Your task to perform on an android device: Open accessibility settings Image 0: 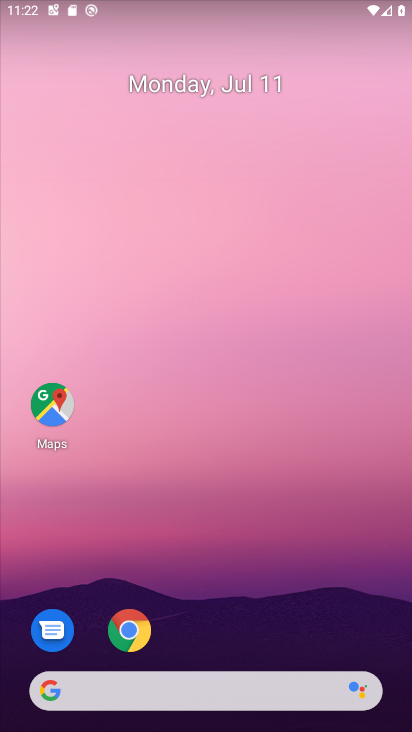
Step 0: drag from (185, 646) to (159, 47)
Your task to perform on an android device: Open accessibility settings Image 1: 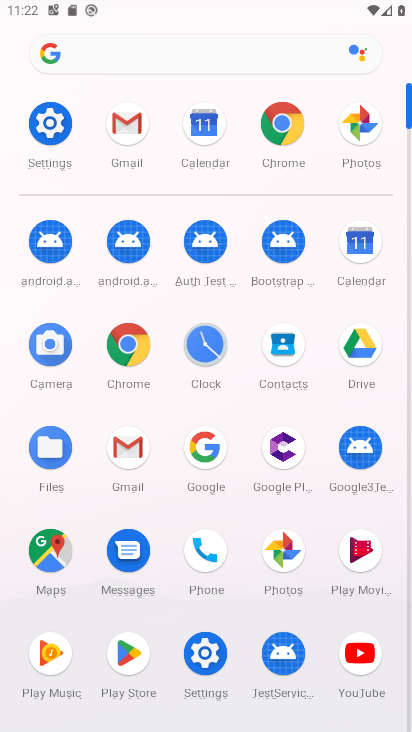
Step 1: click (205, 668)
Your task to perform on an android device: Open accessibility settings Image 2: 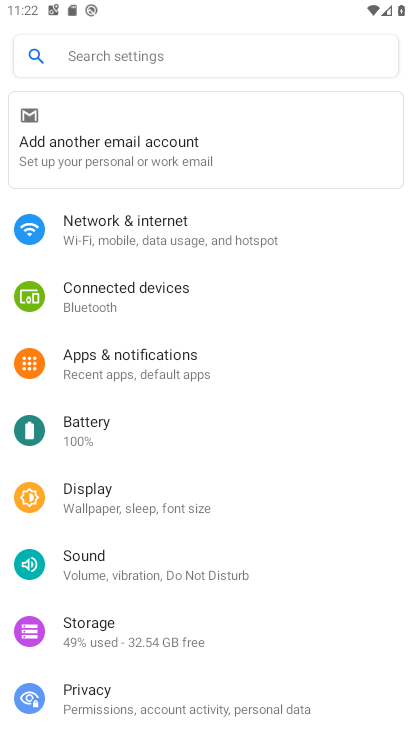
Step 2: drag from (185, 690) to (162, 345)
Your task to perform on an android device: Open accessibility settings Image 3: 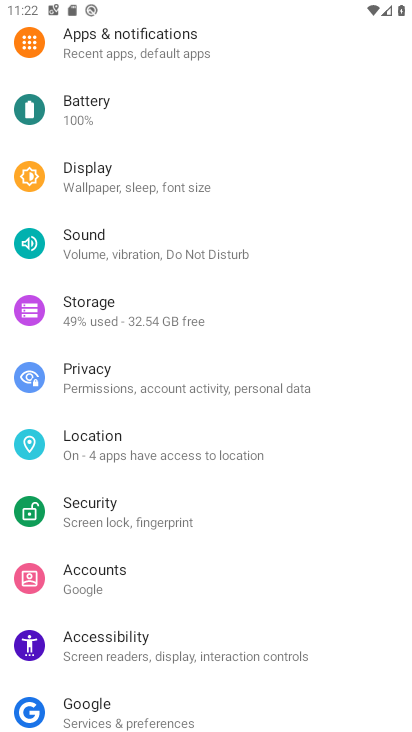
Step 3: click (132, 652)
Your task to perform on an android device: Open accessibility settings Image 4: 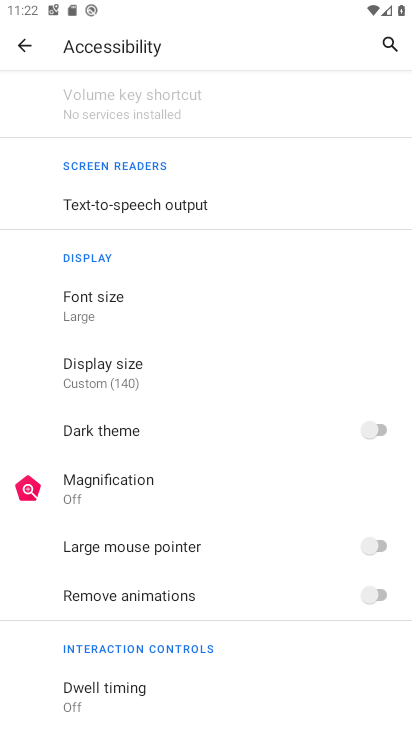
Step 4: task complete